Your task to perform on an android device: toggle notification dots Image 0: 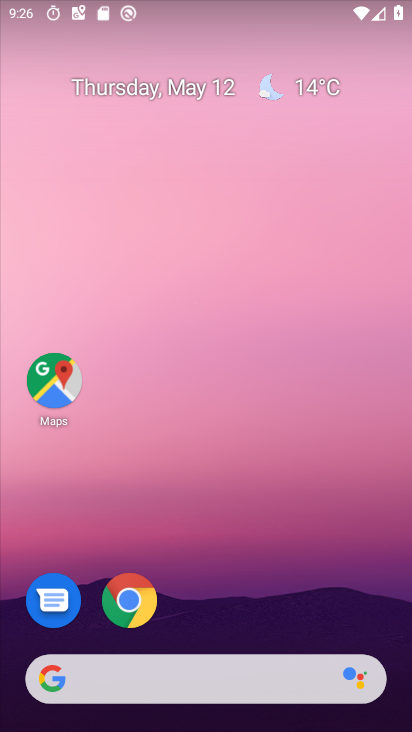
Step 0: click (152, 212)
Your task to perform on an android device: toggle notification dots Image 1: 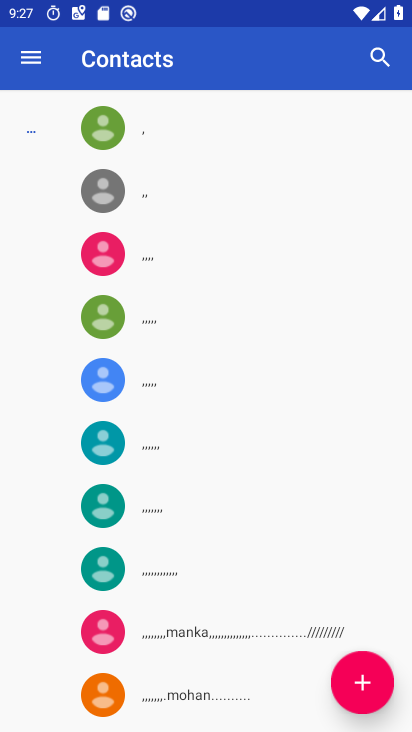
Step 1: drag from (296, 447) to (299, 48)
Your task to perform on an android device: toggle notification dots Image 2: 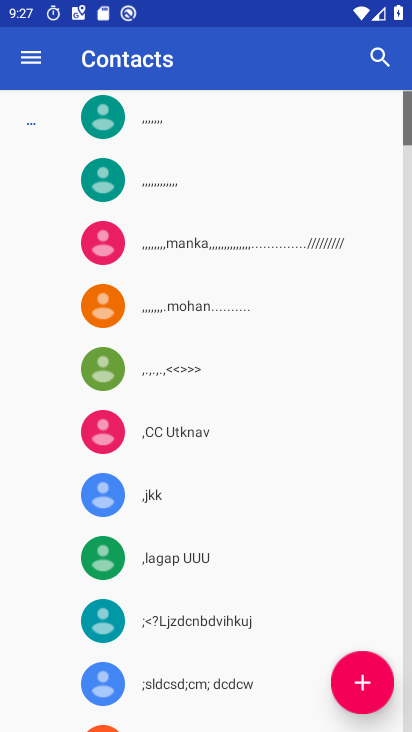
Step 2: press back button
Your task to perform on an android device: toggle notification dots Image 3: 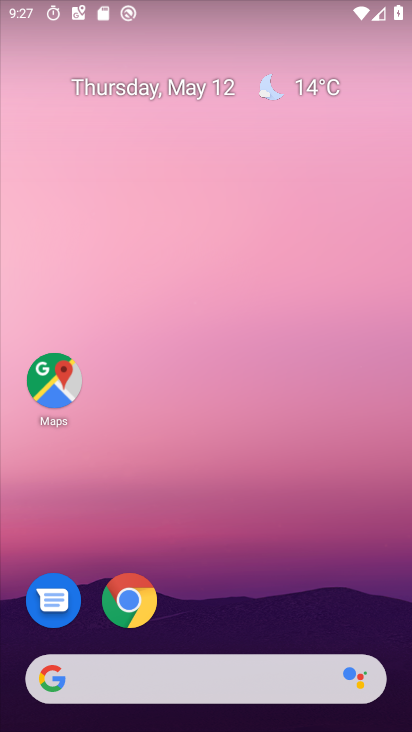
Step 3: drag from (273, 636) to (140, 18)
Your task to perform on an android device: toggle notification dots Image 4: 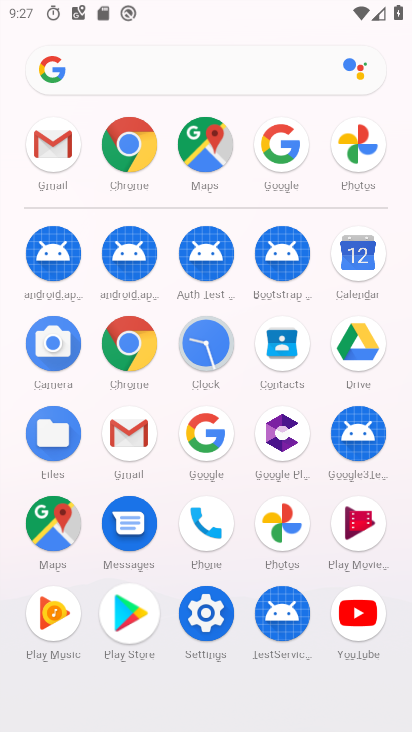
Step 4: click (198, 611)
Your task to perform on an android device: toggle notification dots Image 5: 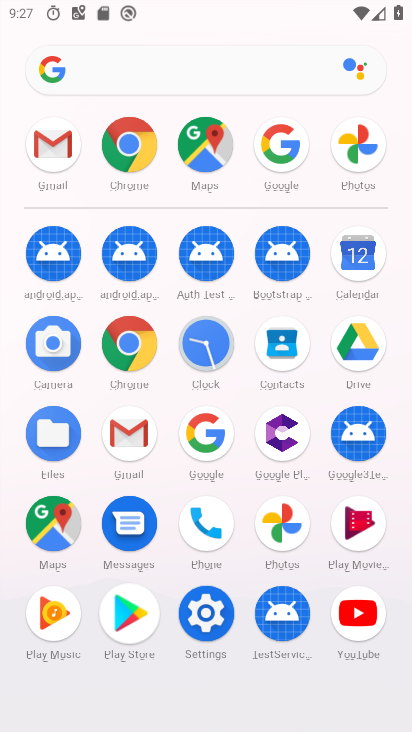
Step 5: click (199, 611)
Your task to perform on an android device: toggle notification dots Image 6: 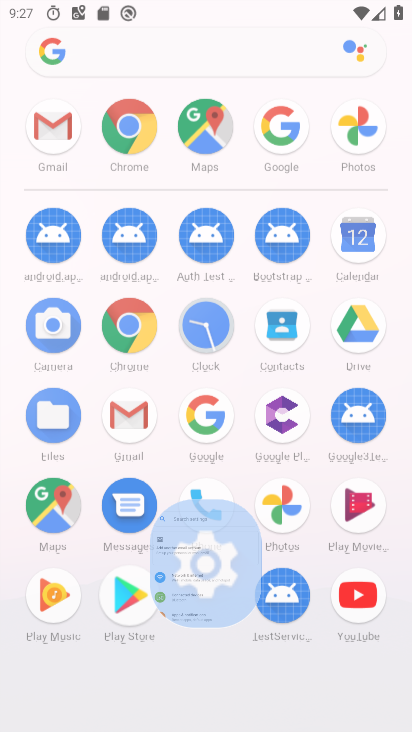
Step 6: click (199, 611)
Your task to perform on an android device: toggle notification dots Image 7: 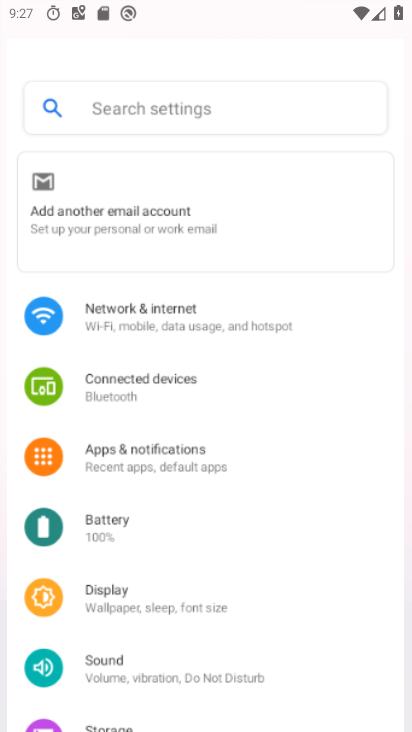
Step 7: click (199, 611)
Your task to perform on an android device: toggle notification dots Image 8: 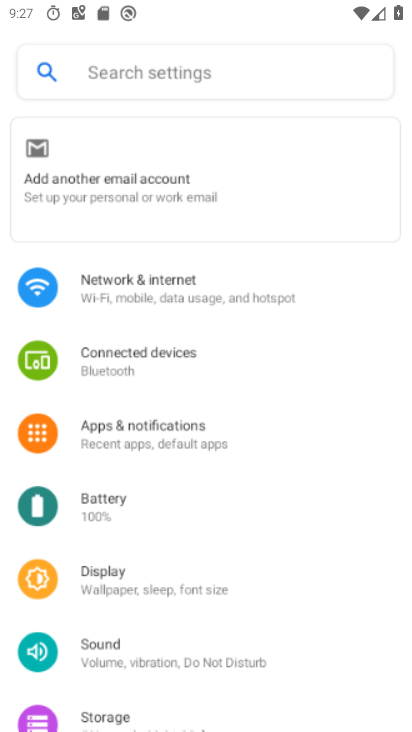
Step 8: click (200, 611)
Your task to perform on an android device: toggle notification dots Image 9: 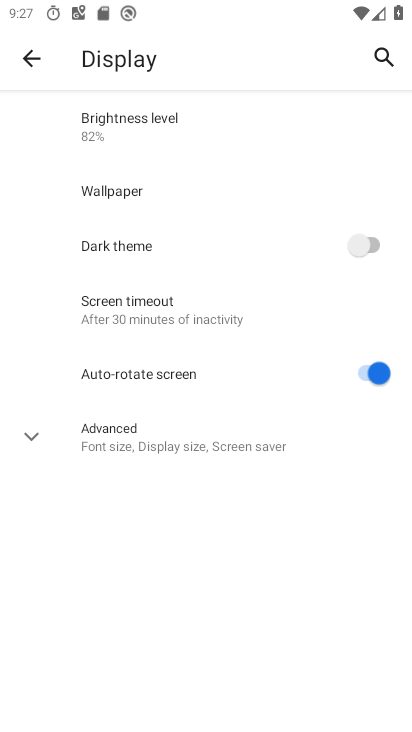
Step 9: click (24, 57)
Your task to perform on an android device: toggle notification dots Image 10: 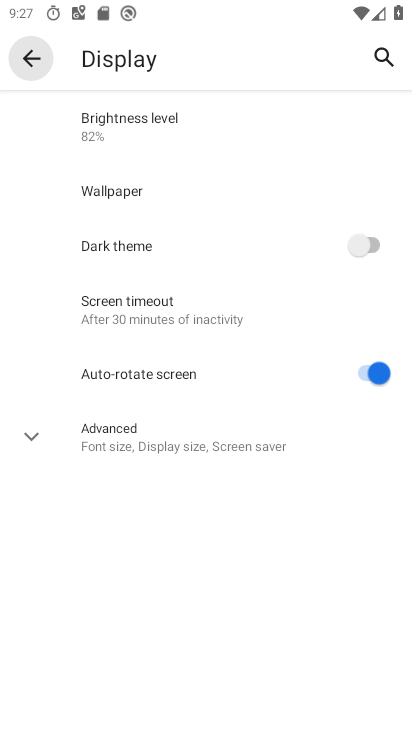
Step 10: click (25, 57)
Your task to perform on an android device: toggle notification dots Image 11: 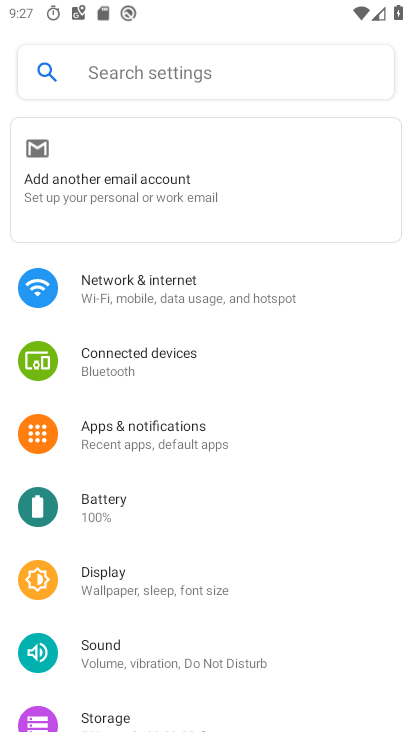
Step 11: click (141, 432)
Your task to perform on an android device: toggle notification dots Image 12: 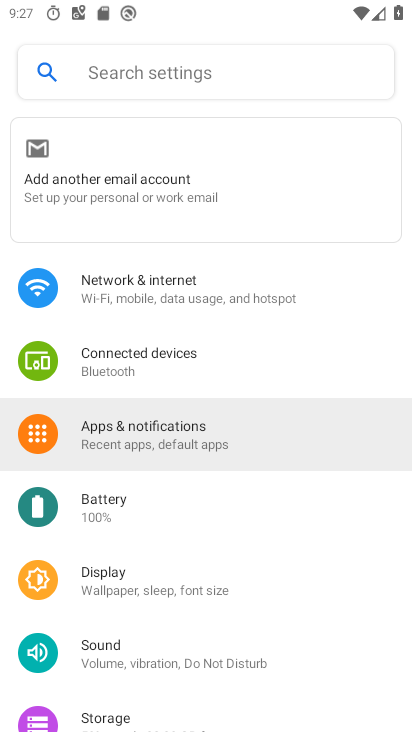
Step 12: click (139, 432)
Your task to perform on an android device: toggle notification dots Image 13: 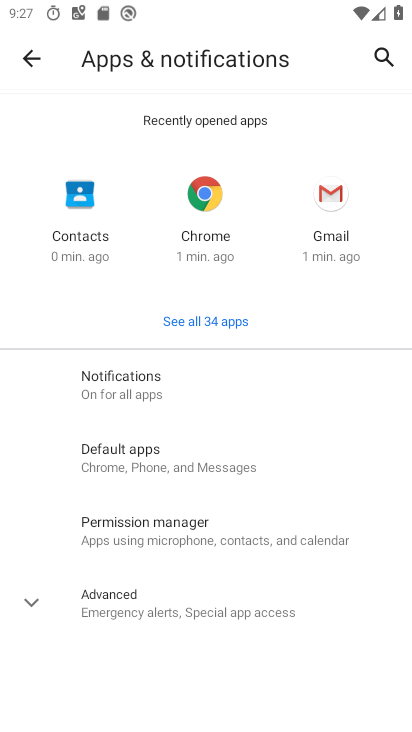
Step 13: click (110, 382)
Your task to perform on an android device: toggle notification dots Image 14: 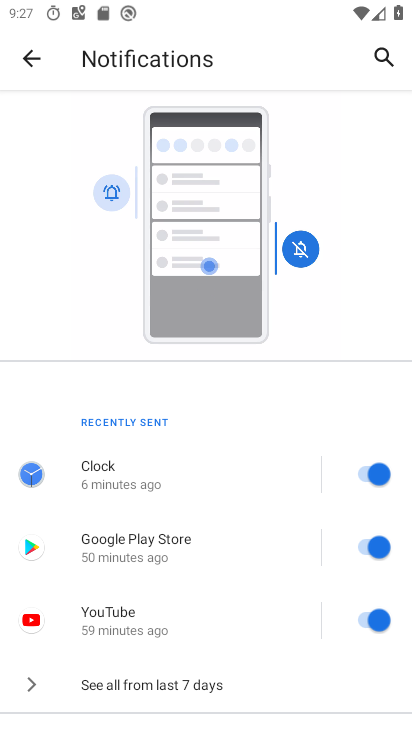
Step 14: drag from (192, 518) to (157, 70)
Your task to perform on an android device: toggle notification dots Image 15: 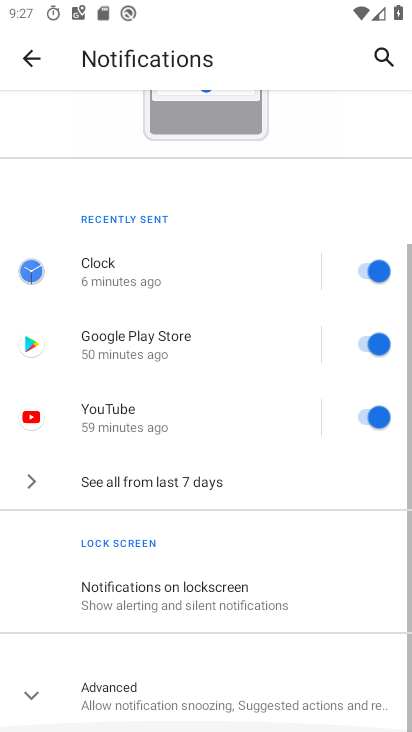
Step 15: drag from (246, 375) to (223, 40)
Your task to perform on an android device: toggle notification dots Image 16: 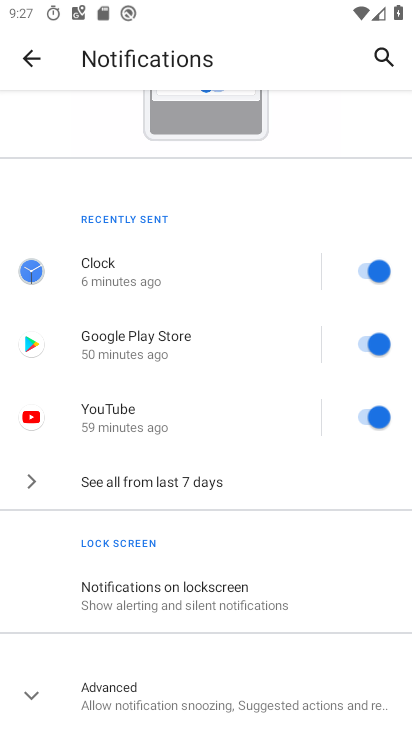
Step 16: drag from (264, 414) to (241, 62)
Your task to perform on an android device: toggle notification dots Image 17: 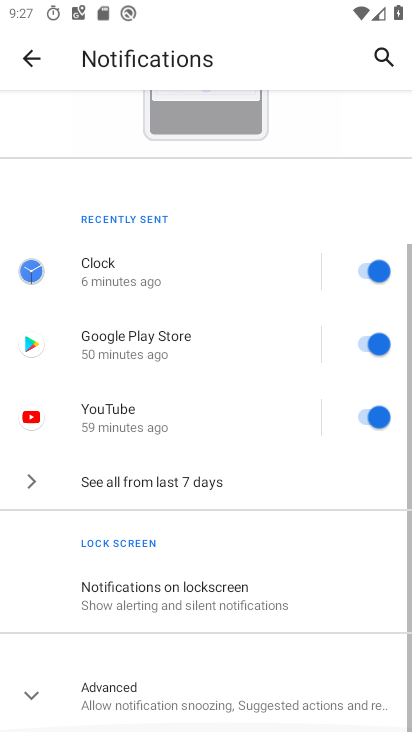
Step 17: drag from (223, 445) to (189, 117)
Your task to perform on an android device: toggle notification dots Image 18: 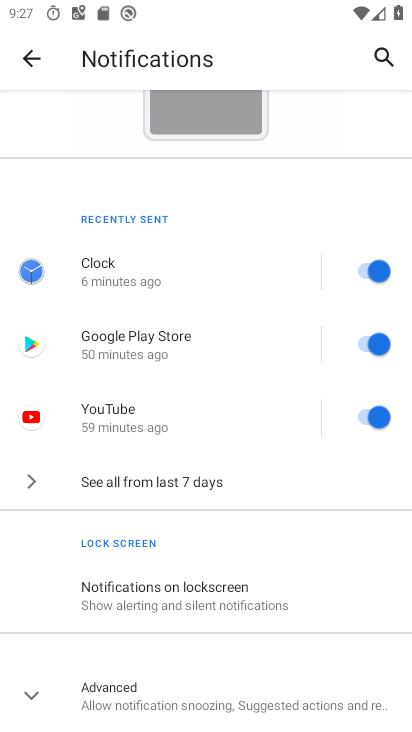
Step 18: click (123, 691)
Your task to perform on an android device: toggle notification dots Image 19: 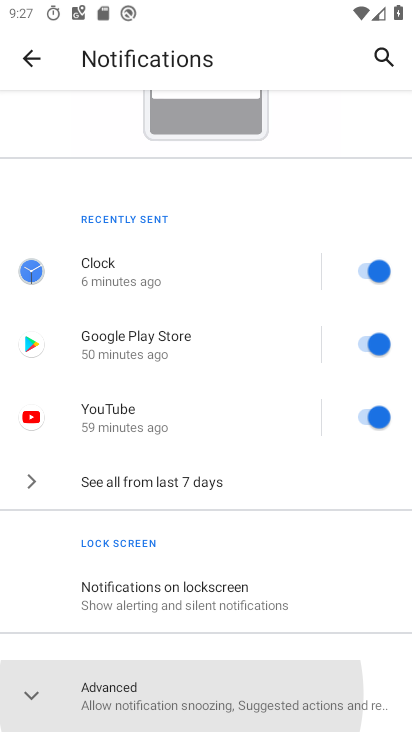
Step 19: click (120, 694)
Your task to perform on an android device: toggle notification dots Image 20: 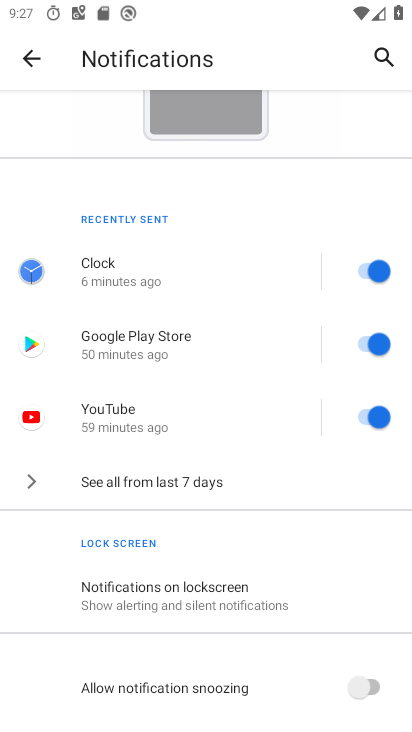
Step 20: drag from (191, 460) to (129, 98)
Your task to perform on an android device: toggle notification dots Image 21: 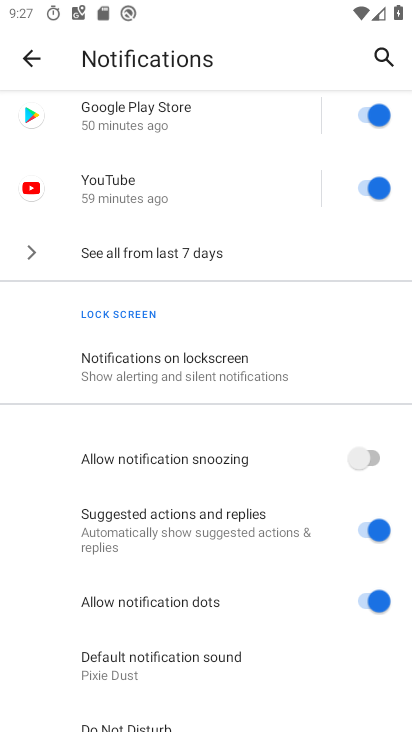
Step 21: click (380, 595)
Your task to perform on an android device: toggle notification dots Image 22: 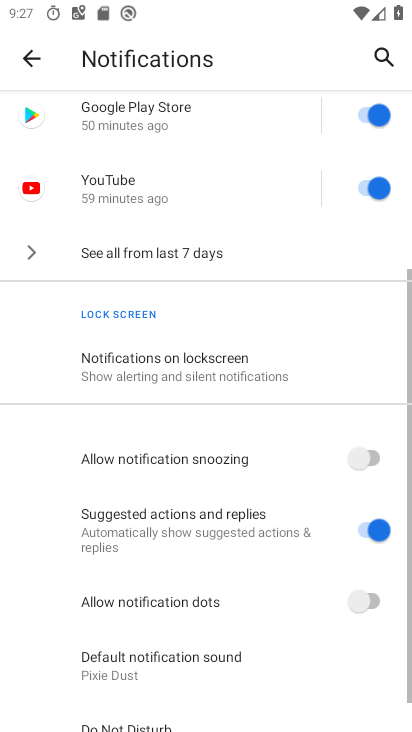
Step 22: task complete